Your task to perform on an android device: visit the assistant section in the google photos Image 0: 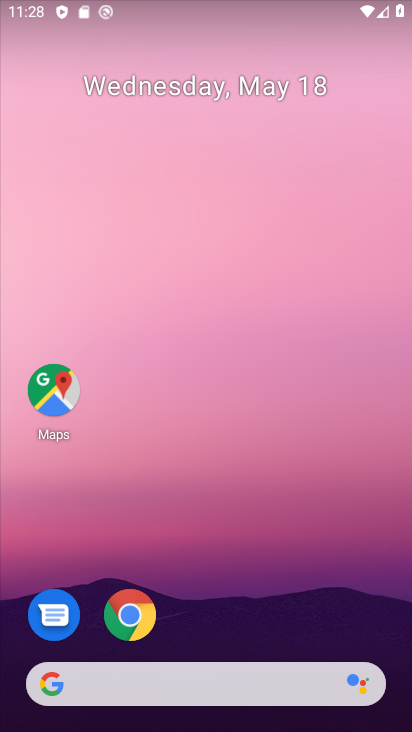
Step 0: press home button
Your task to perform on an android device: visit the assistant section in the google photos Image 1: 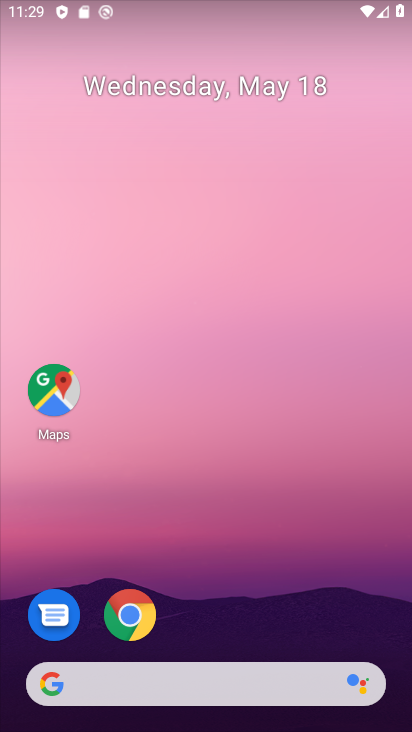
Step 1: drag from (61, 546) to (294, 73)
Your task to perform on an android device: visit the assistant section in the google photos Image 2: 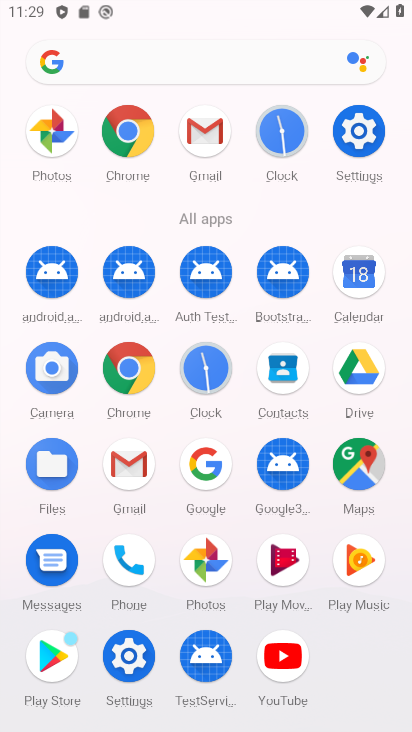
Step 2: click (45, 146)
Your task to perform on an android device: visit the assistant section in the google photos Image 3: 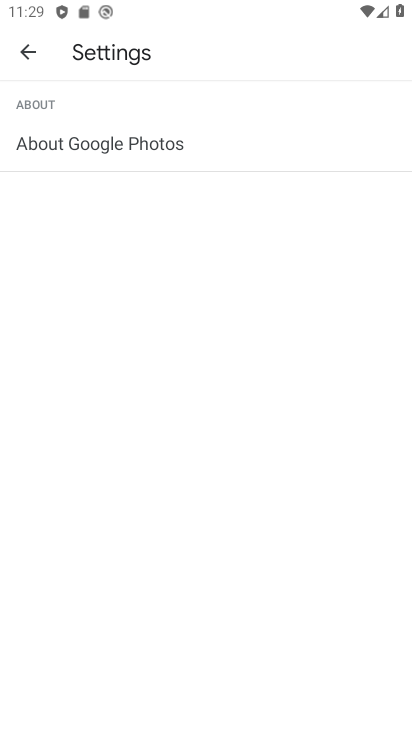
Step 3: click (16, 45)
Your task to perform on an android device: visit the assistant section in the google photos Image 4: 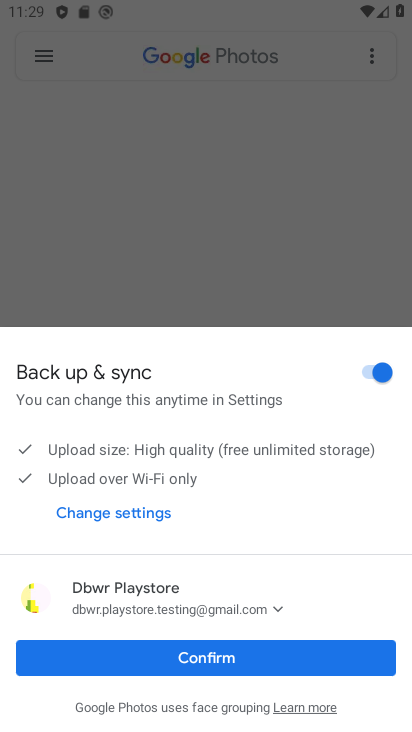
Step 4: click (195, 664)
Your task to perform on an android device: visit the assistant section in the google photos Image 5: 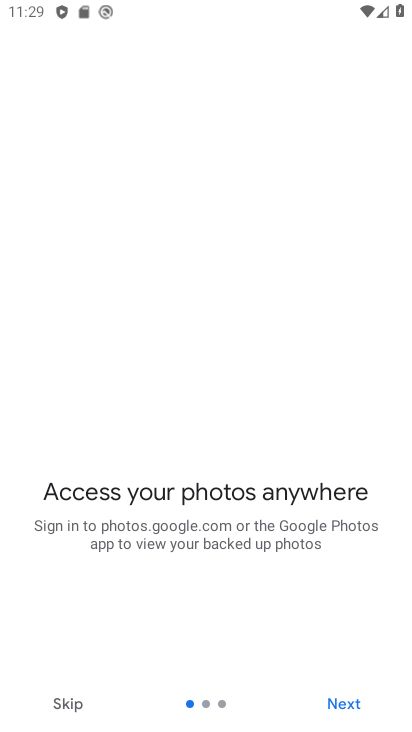
Step 5: click (338, 703)
Your task to perform on an android device: visit the assistant section in the google photos Image 6: 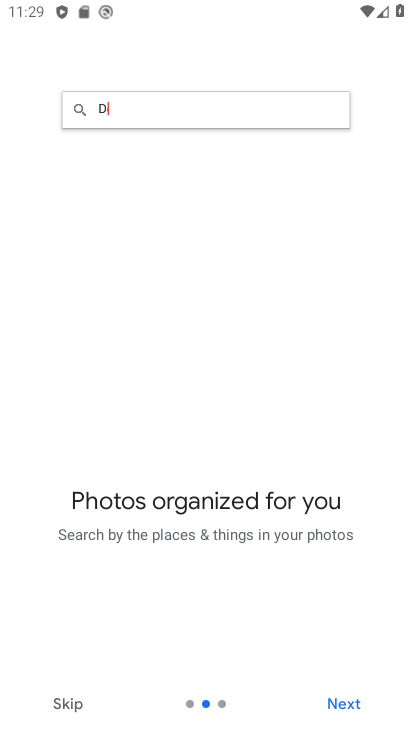
Step 6: click (341, 702)
Your task to perform on an android device: visit the assistant section in the google photos Image 7: 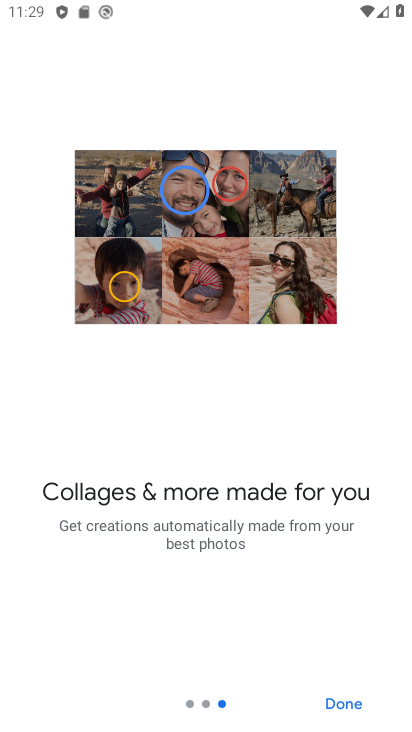
Step 7: click (341, 702)
Your task to perform on an android device: visit the assistant section in the google photos Image 8: 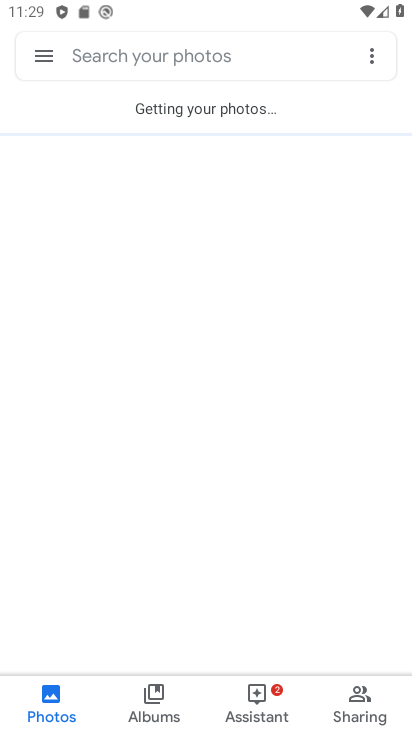
Step 8: click (242, 697)
Your task to perform on an android device: visit the assistant section in the google photos Image 9: 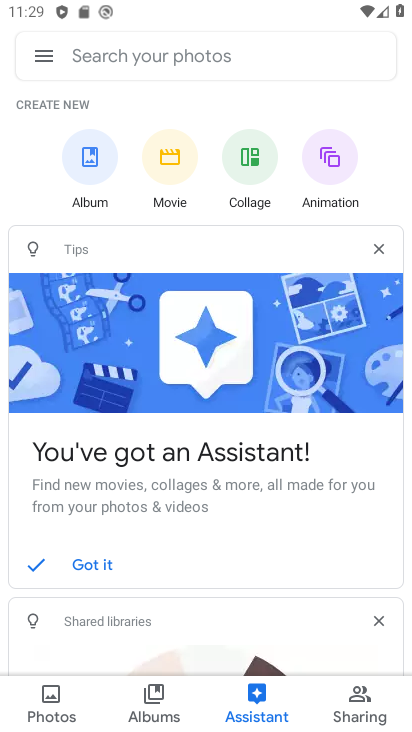
Step 9: task complete